Your task to perform on an android device: Open Youtube and go to "Your channel" Image 0: 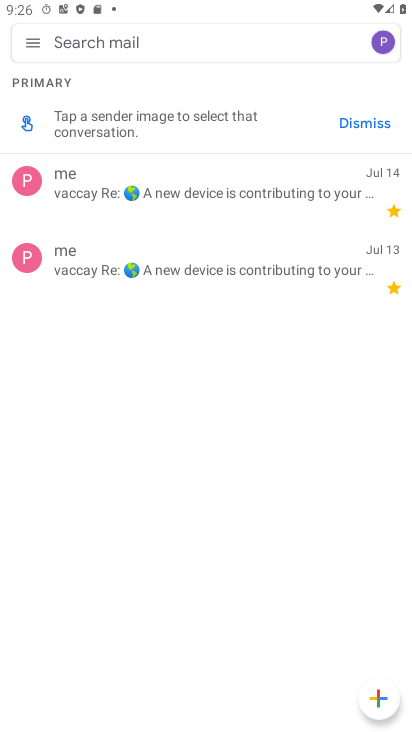
Step 0: drag from (293, 680) to (291, 220)
Your task to perform on an android device: Open Youtube and go to "Your channel" Image 1: 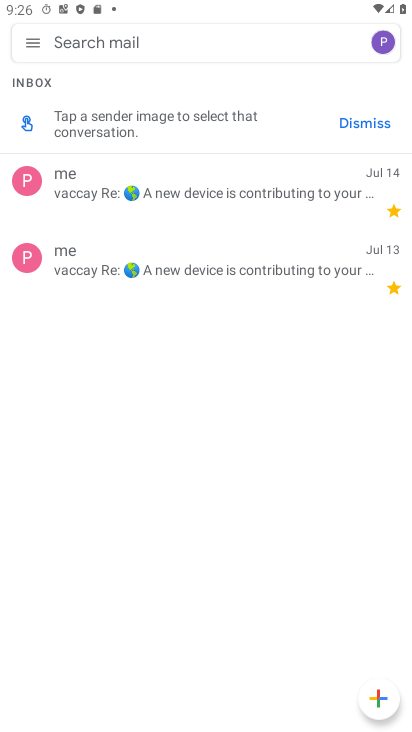
Step 1: press home button
Your task to perform on an android device: Open Youtube and go to "Your channel" Image 2: 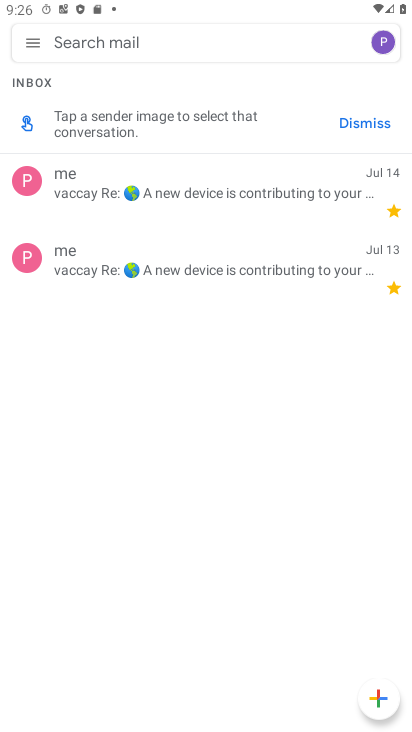
Step 2: press home button
Your task to perform on an android device: Open Youtube and go to "Your channel" Image 3: 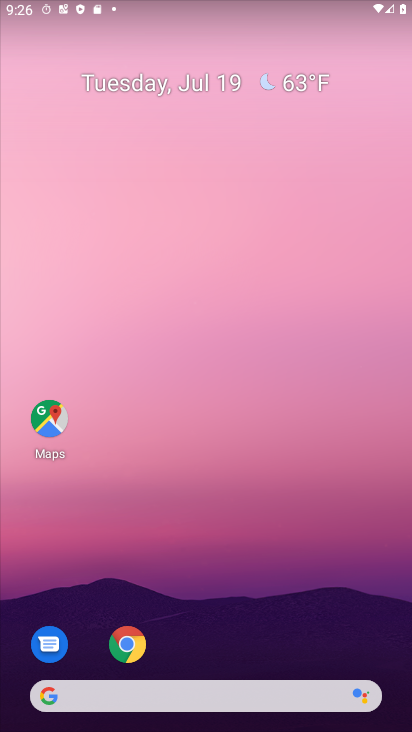
Step 3: drag from (193, 661) to (199, 432)
Your task to perform on an android device: Open Youtube and go to "Your channel" Image 4: 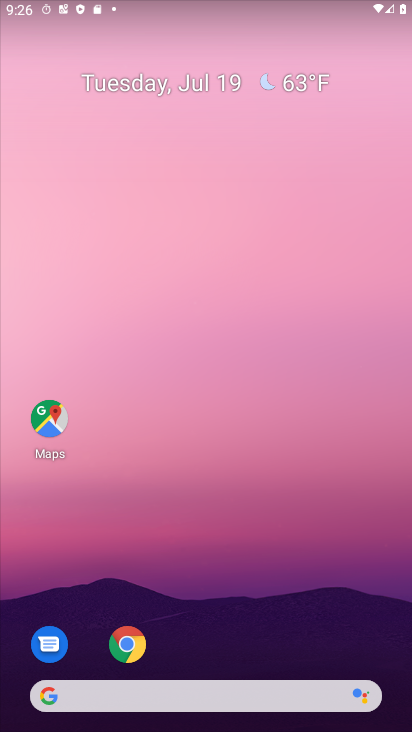
Step 4: drag from (234, 608) to (232, 450)
Your task to perform on an android device: Open Youtube and go to "Your channel" Image 5: 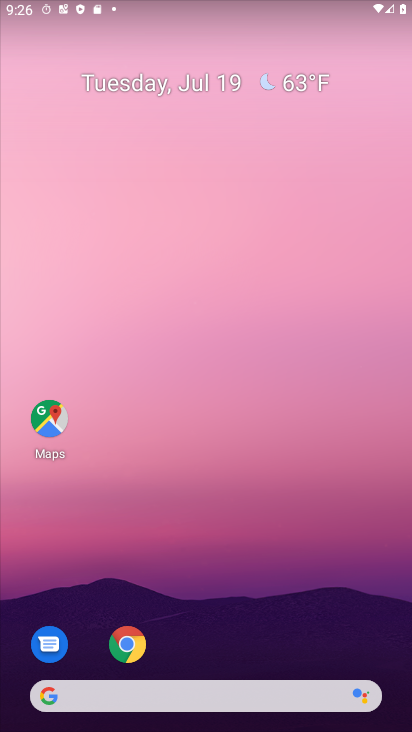
Step 5: drag from (292, 497) to (271, 242)
Your task to perform on an android device: Open Youtube and go to "Your channel" Image 6: 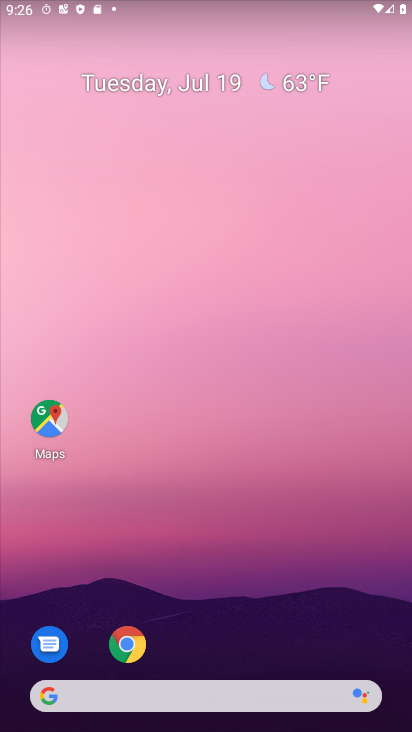
Step 6: drag from (282, 556) to (258, 238)
Your task to perform on an android device: Open Youtube and go to "Your channel" Image 7: 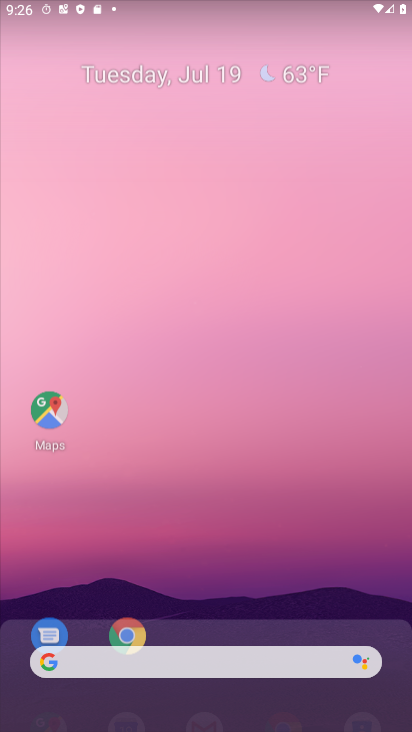
Step 7: drag from (247, 562) to (247, 192)
Your task to perform on an android device: Open Youtube and go to "Your channel" Image 8: 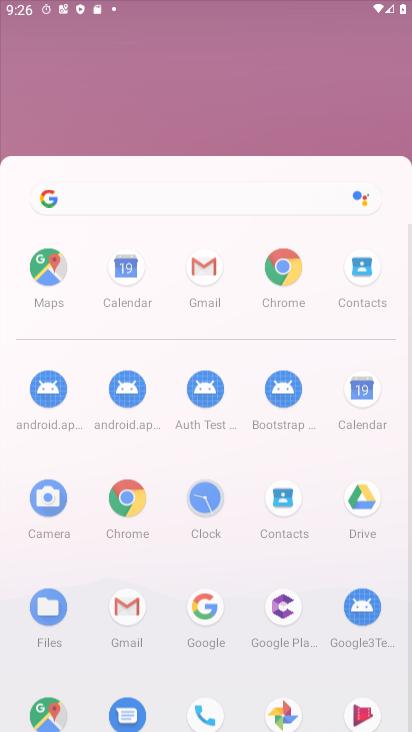
Step 8: drag from (257, 600) to (222, 216)
Your task to perform on an android device: Open Youtube and go to "Your channel" Image 9: 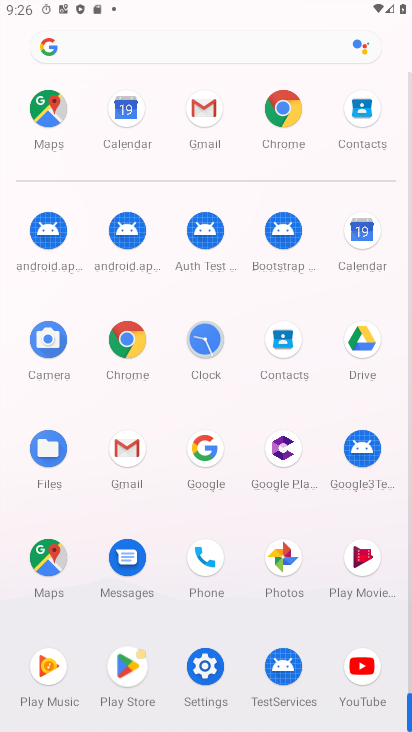
Step 9: click (363, 659)
Your task to perform on an android device: Open Youtube and go to "Your channel" Image 10: 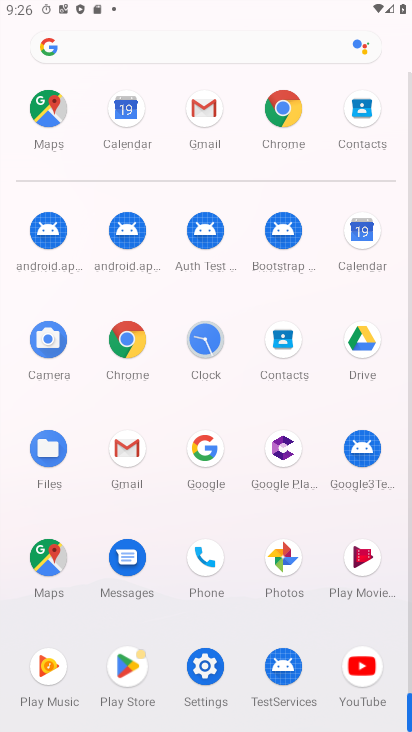
Step 10: click (363, 660)
Your task to perform on an android device: Open Youtube and go to "Your channel" Image 11: 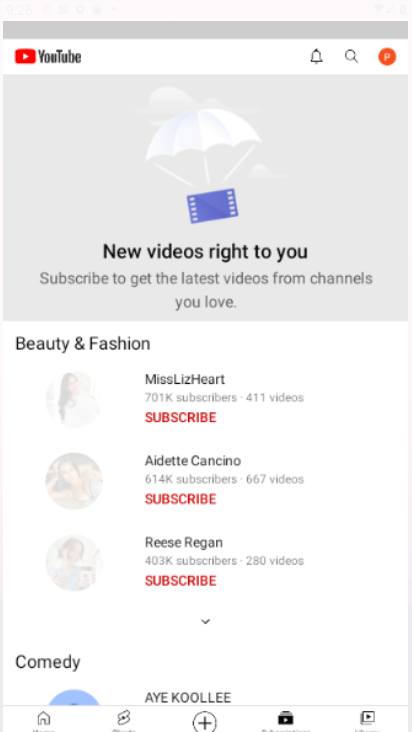
Step 11: click (363, 660)
Your task to perform on an android device: Open Youtube and go to "Your channel" Image 12: 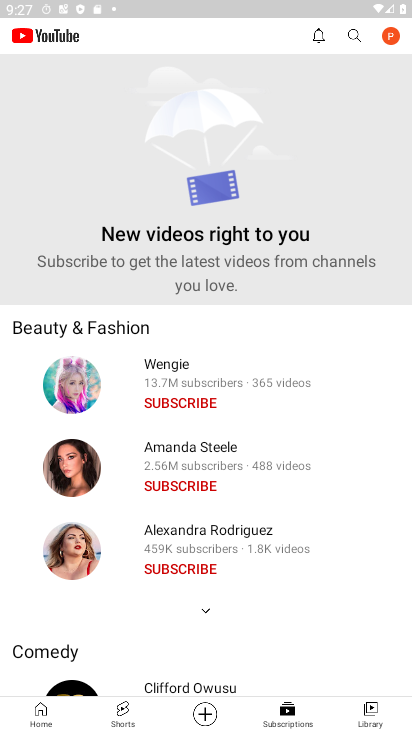
Step 12: task complete